Your task to perform on an android device: Open Reddit.com Image 0: 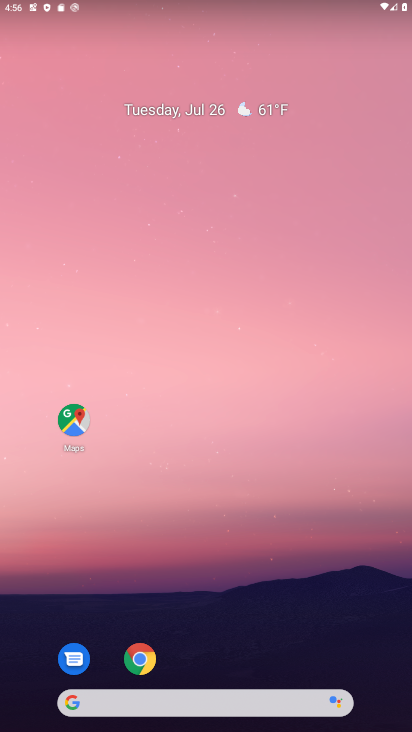
Step 0: click (262, 701)
Your task to perform on an android device: Open Reddit.com Image 1: 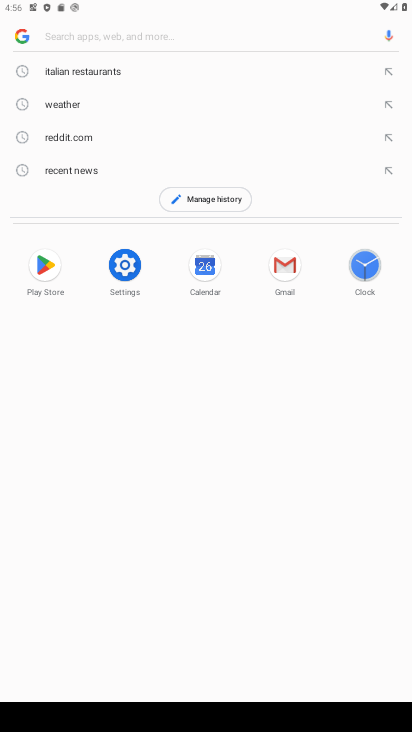
Step 1: type "Reddit.com"
Your task to perform on an android device: Open Reddit.com Image 2: 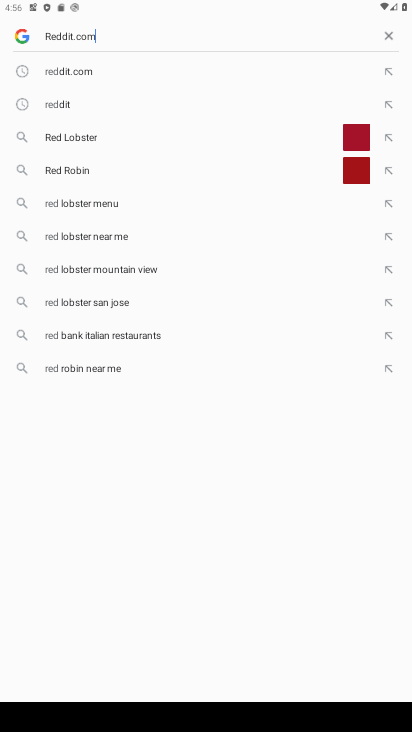
Step 2: press enter
Your task to perform on an android device: Open Reddit.com Image 3: 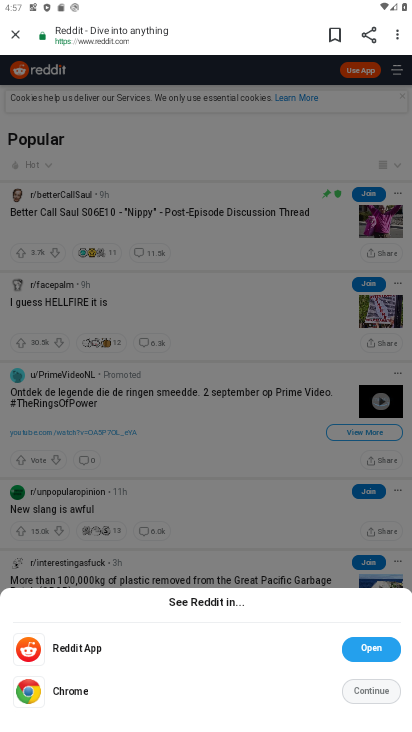
Step 3: click (373, 687)
Your task to perform on an android device: Open Reddit.com Image 4: 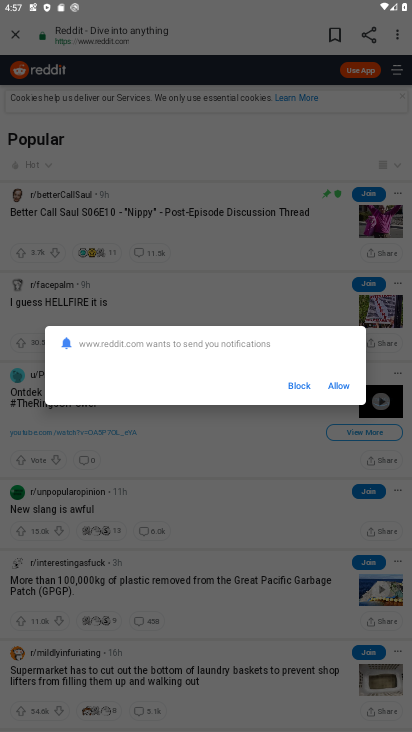
Step 4: click (336, 378)
Your task to perform on an android device: Open Reddit.com Image 5: 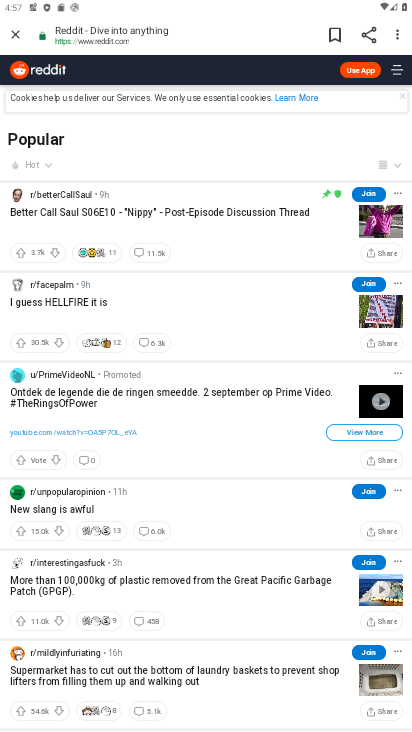
Step 5: task complete